Your task to perform on an android device: turn pop-ups off in chrome Image 0: 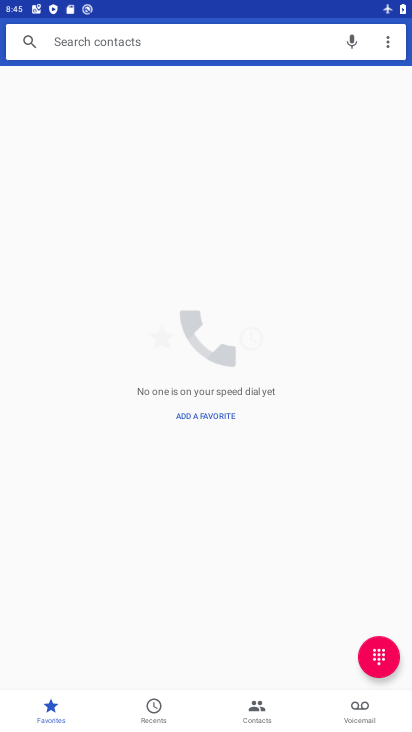
Step 0: press home button
Your task to perform on an android device: turn pop-ups off in chrome Image 1: 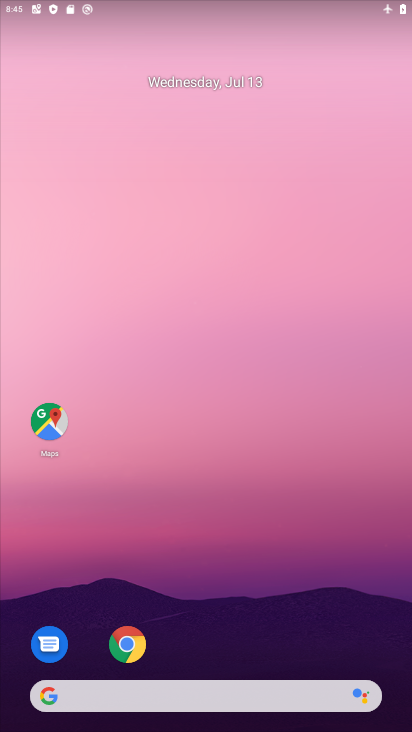
Step 1: click (131, 644)
Your task to perform on an android device: turn pop-ups off in chrome Image 2: 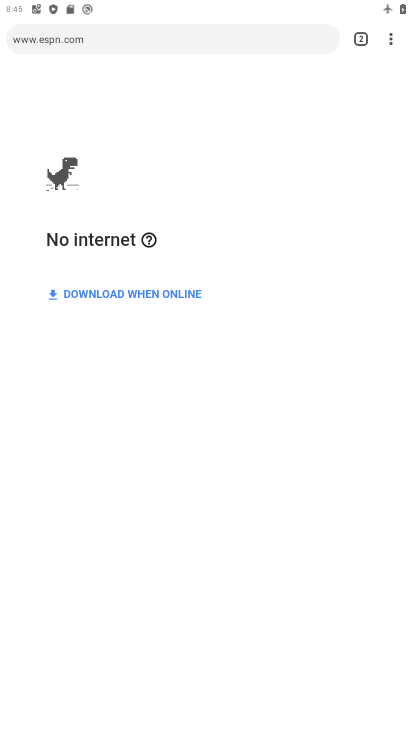
Step 2: click (391, 42)
Your task to perform on an android device: turn pop-ups off in chrome Image 3: 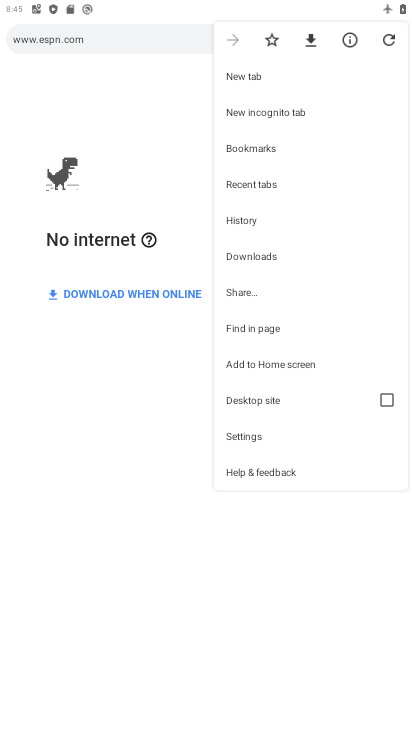
Step 3: click (243, 435)
Your task to perform on an android device: turn pop-ups off in chrome Image 4: 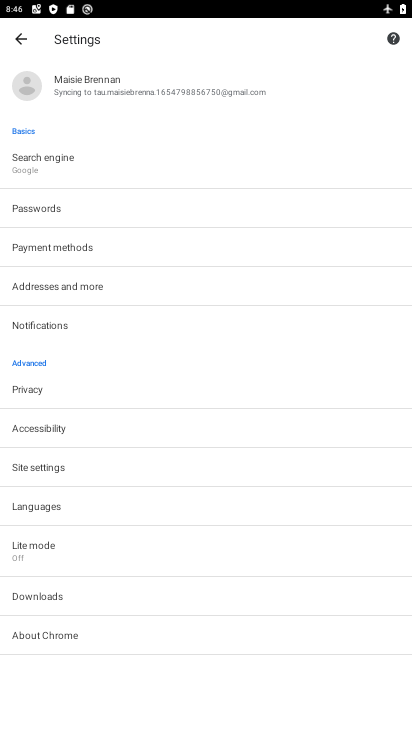
Step 4: click (49, 465)
Your task to perform on an android device: turn pop-ups off in chrome Image 5: 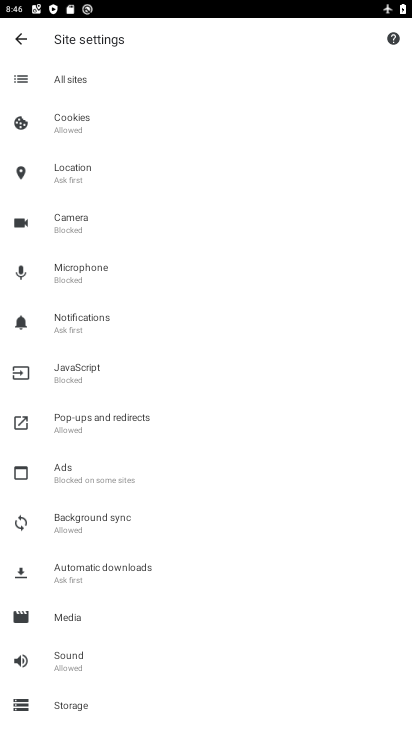
Step 5: click (91, 418)
Your task to perform on an android device: turn pop-ups off in chrome Image 6: 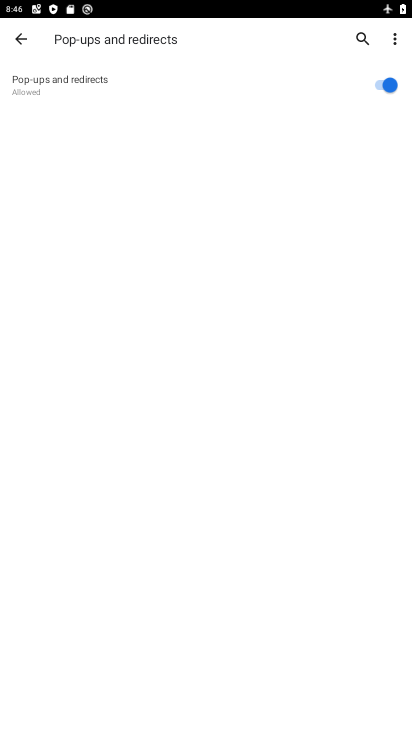
Step 6: click (378, 82)
Your task to perform on an android device: turn pop-ups off in chrome Image 7: 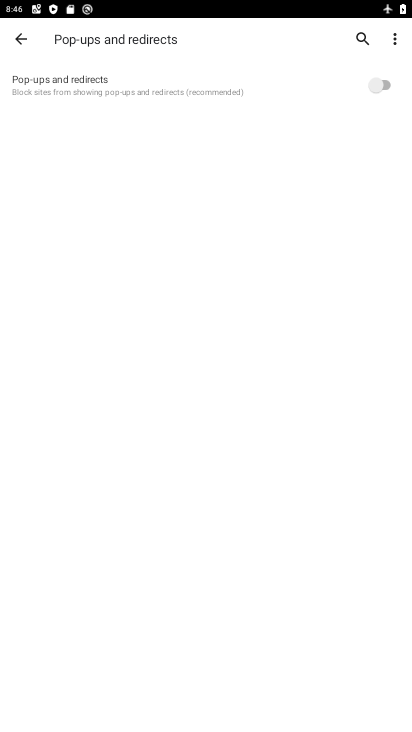
Step 7: task complete